Your task to perform on an android device: turn on notifications settings in the gmail app Image 0: 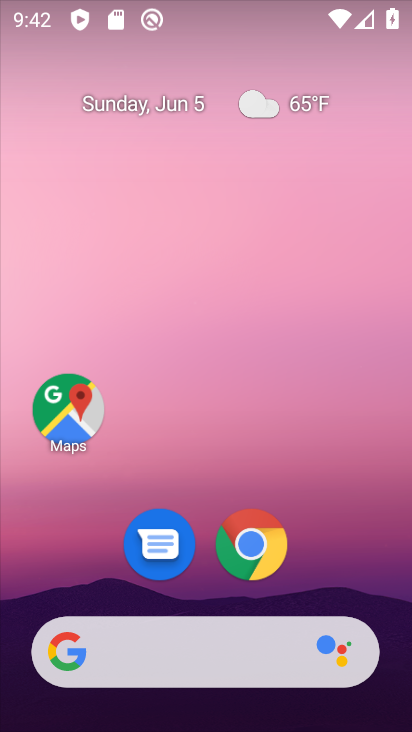
Step 0: drag from (360, 564) to (322, 131)
Your task to perform on an android device: turn on notifications settings in the gmail app Image 1: 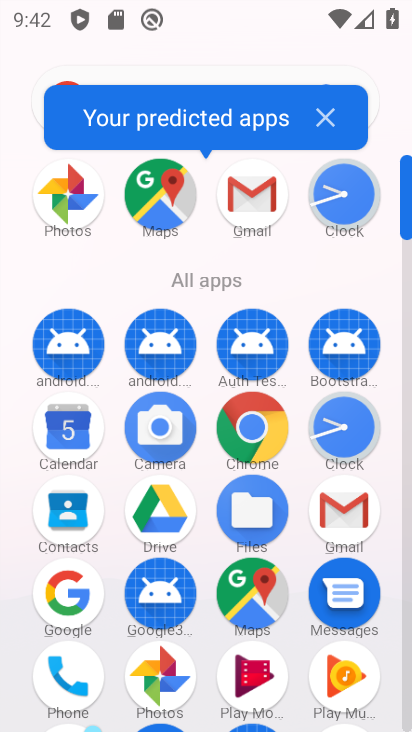
Step 1: click (253, 215)
Your task to perform on an android device: turn on notifications settings in the gmail app Image 2: 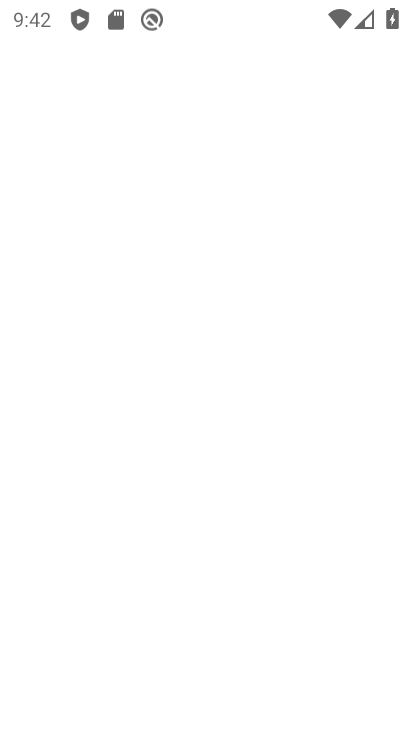
Step 2: task complete